Your task to perform on an android device: Go to Maps Image 0: 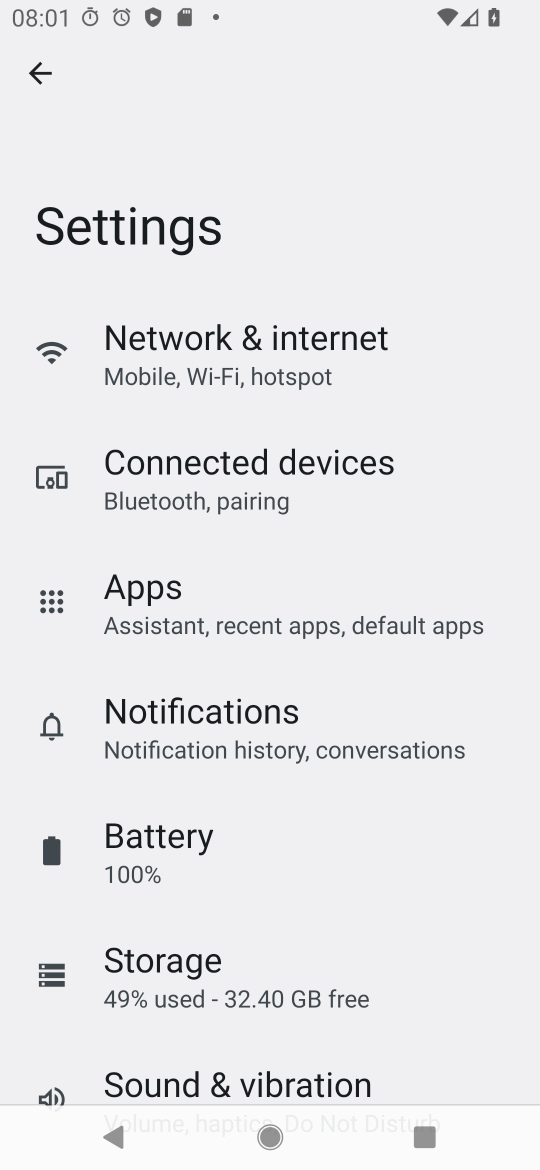
Step 0: press home button
Your task to perform on an android device: Go to Maps Image 1: 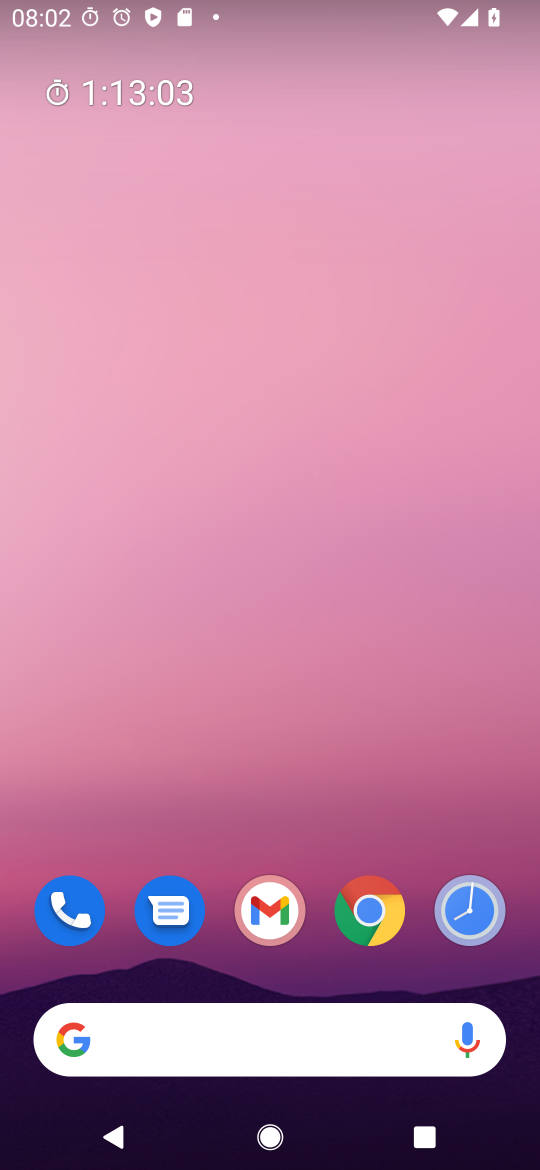
Step 1: drag from (374, 1006) to (342, 52)
Your task to perform on an android device: Go to Maps Image 2: 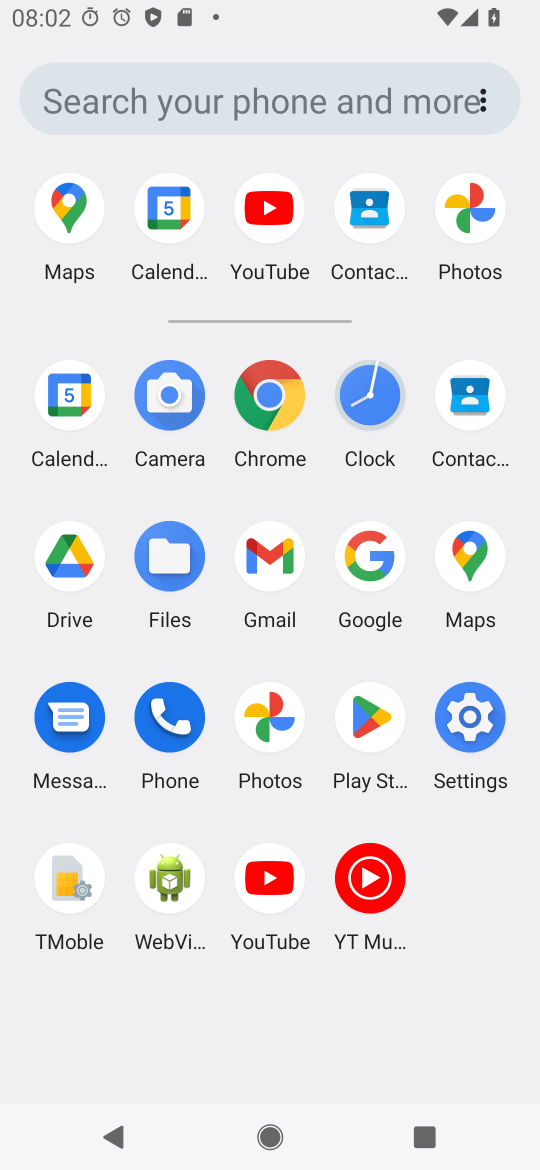
Step 2: click (444, 536)
Your task to perform on an android device: Go to Maps Image 3: 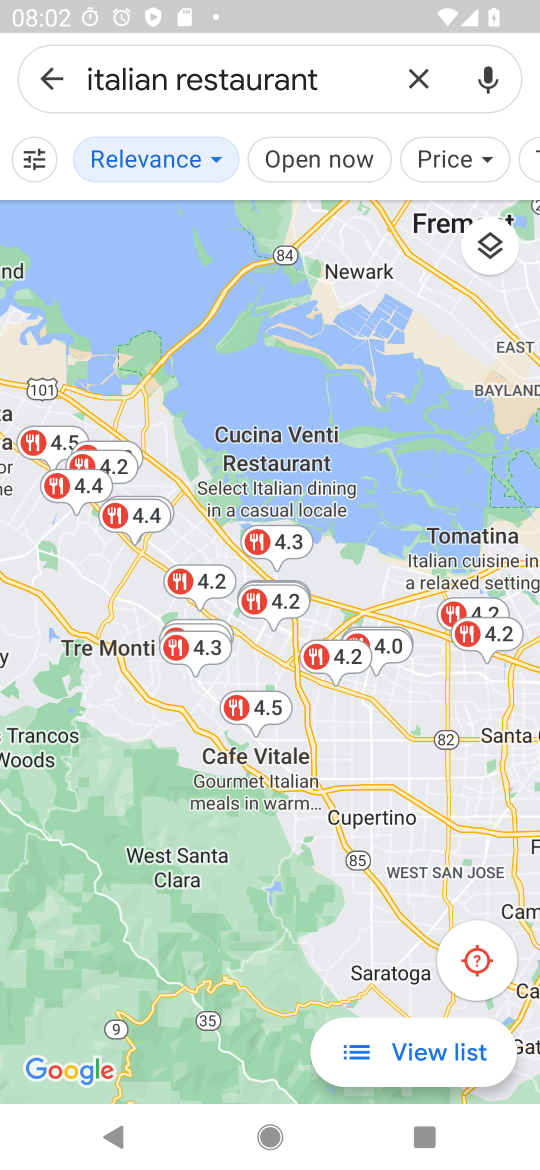
Step 3: task complete